Your task to perform on an android device: turn off data saver in the chrome app Image 0: 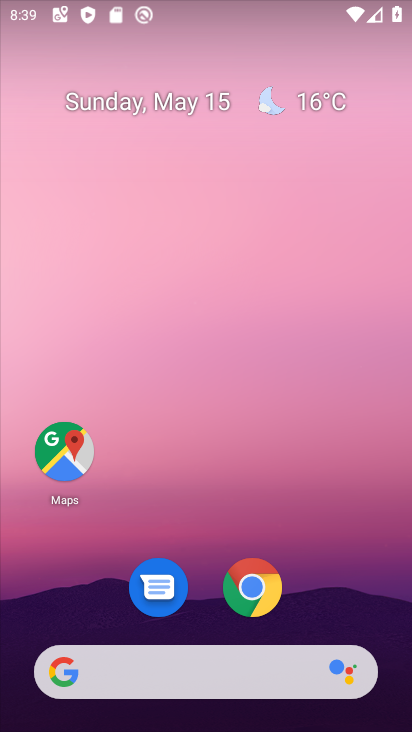
Step 0: click (255, 576)
Your task to perform on an android device: turn off data saver in the chrome app Image 1: 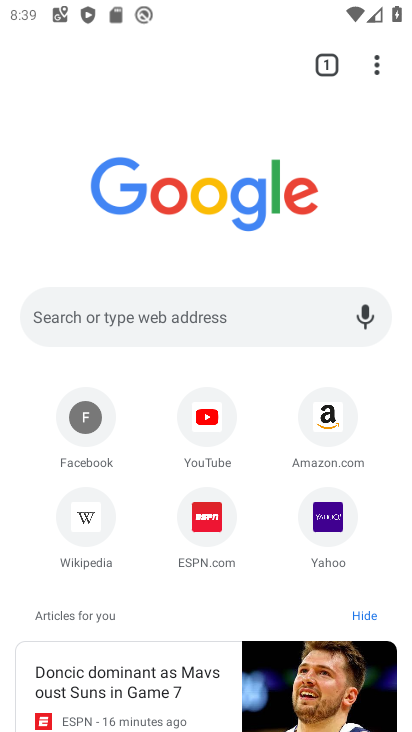
Step 1: drag from (373, 58) to (231, 558)
Your task to perform on an android device: turn off data saver in the chrome app Image 2: 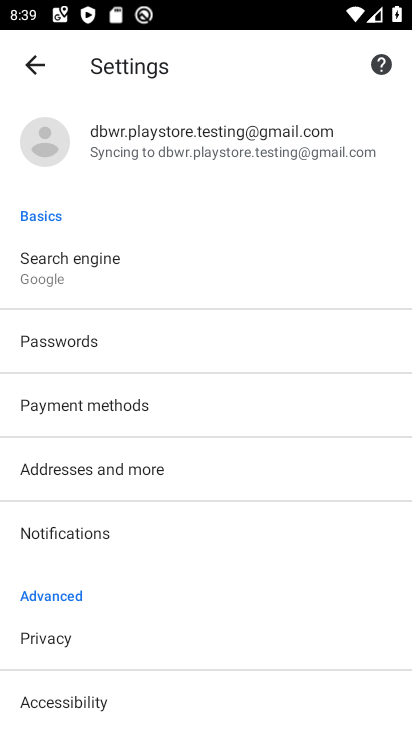
Step 2: drag from (254, 612) to (286, 41)
Your task to perform on an android device: turn off data saver in the chrome app Image 3: 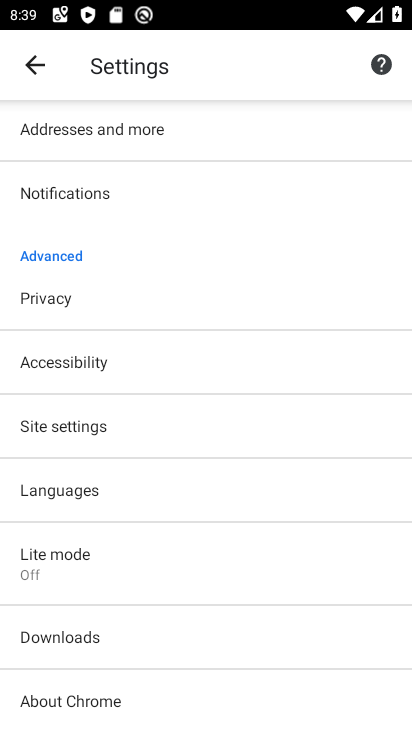
Step 3: click (134, 557)
Your task to perform on an android device: turn off data saver in the chrome app Image 4: 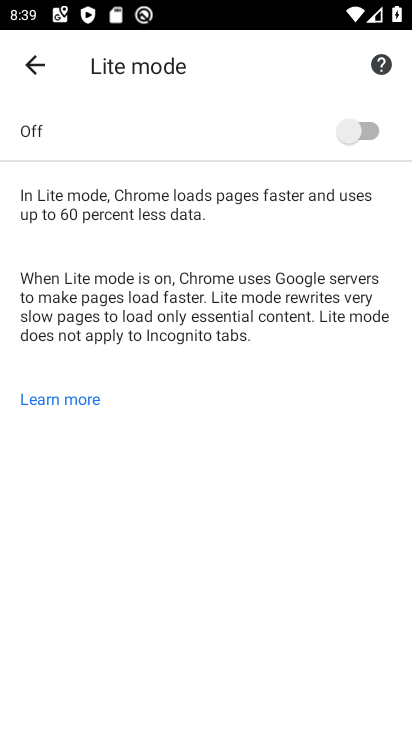
Step 4: task complete